Your task to perform on an android device: stop showing notifications on the lock screen Image 0: 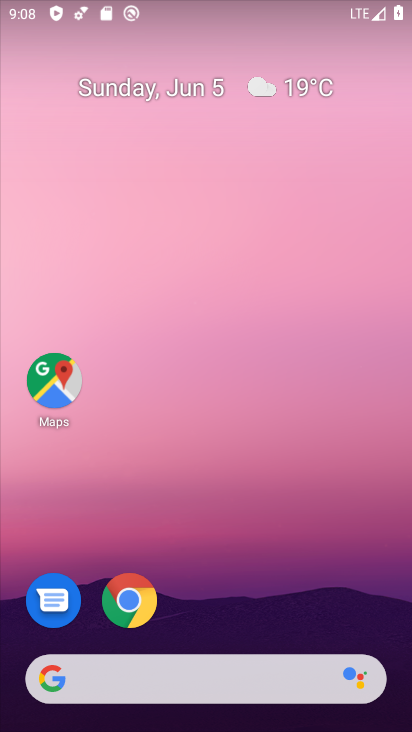
Step 0: drag from (268, 620) to (179, 302)
Your task to perform on an android device: stop showing notifications on the lock screen Image 1: 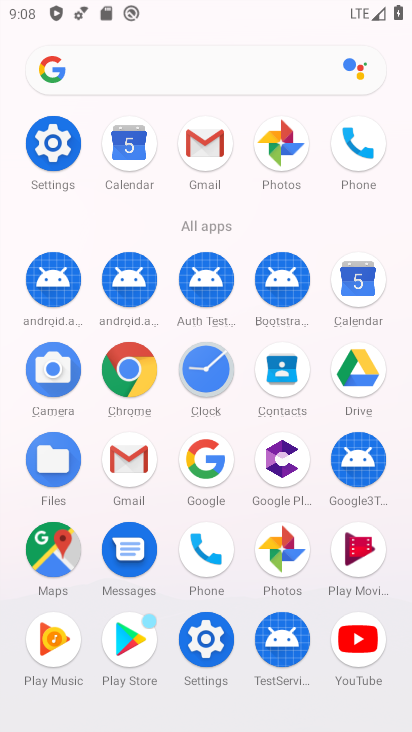
Step 1: click (32, 165)
Your task to perform on an android device: stop showing notifications on the lock screen Image 2: 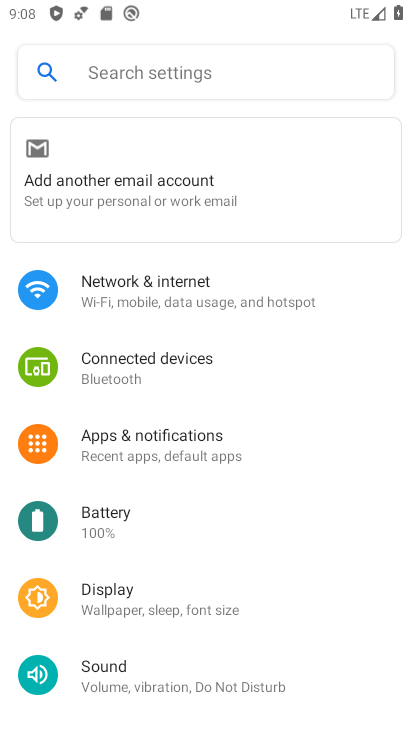
Step 2: click (165, 461)
Your task to perform on an android device: stop showing notifications on the lock screen Image 3: 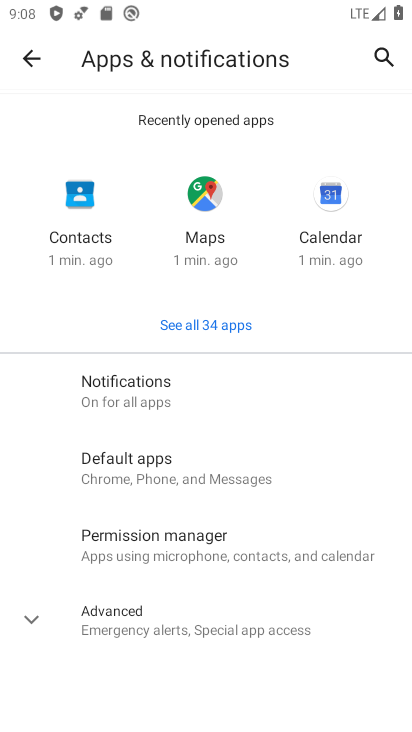
Step 3: click (162, 411)
Your task to perform on an android device: stop showing notifications on the lock screen Image 4: 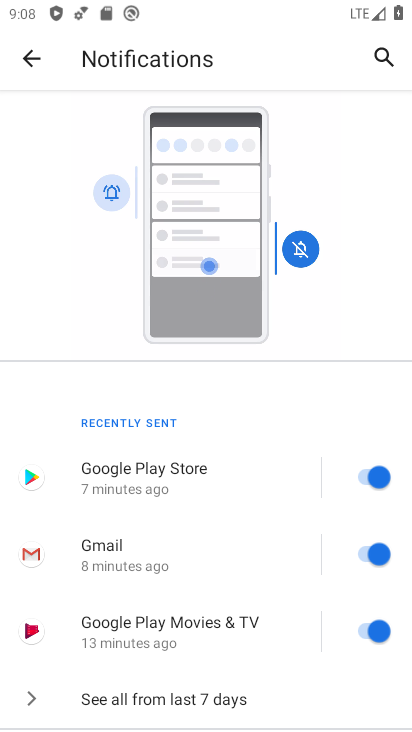
Step 4: drag from (206, 662) to (144, 335)
Your task to perform on an android device: stop showing notifications on the lock screen Image 5: 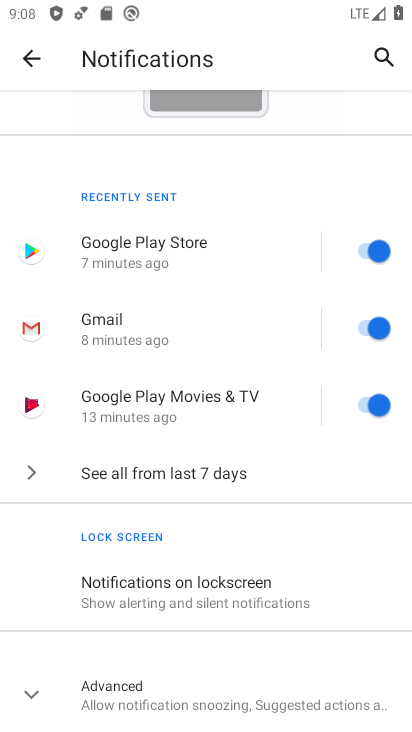
Step 5: click (231, 580)
Your task to perform on an android device: stop showing notifications on the lock screen Image 6: 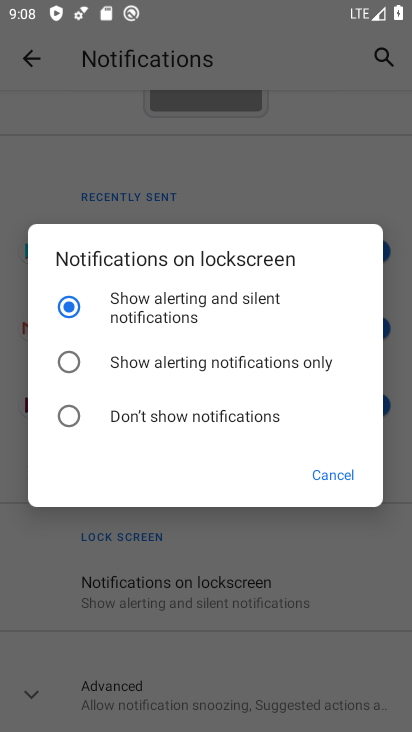
Step 6: click (222, 409)
Your task to perform on an android device: stop showing notifications on the lock screen Image 7: 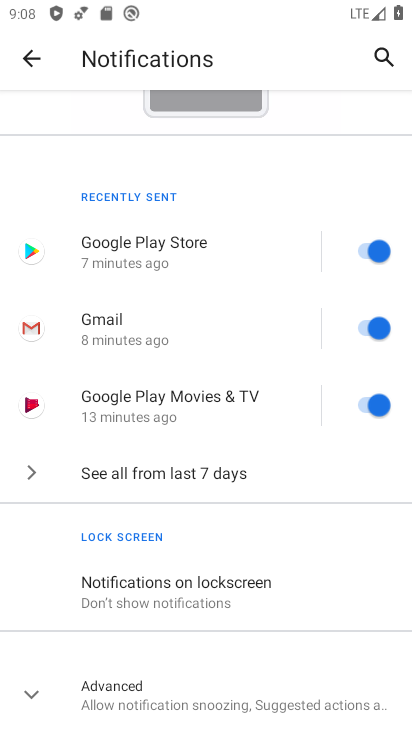
Step 7: task complete